Your task to perform on an android device: open app "Venmo" (install if not already installed) Image 0: 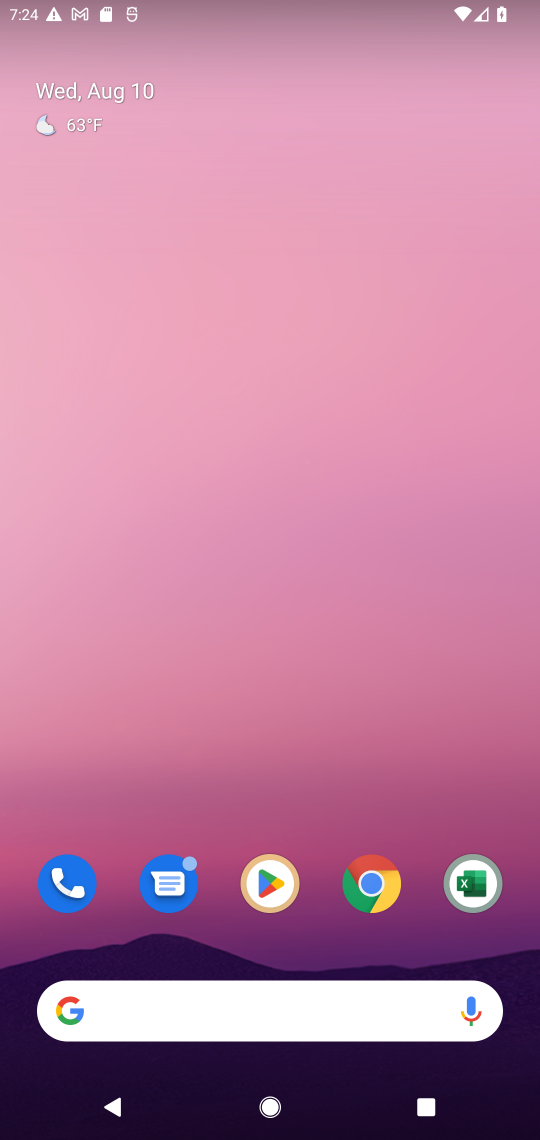
Step 0: click (252, 867)
Your task to perform on an android device: open app "Venmo" (install if not already installed) Image 1: 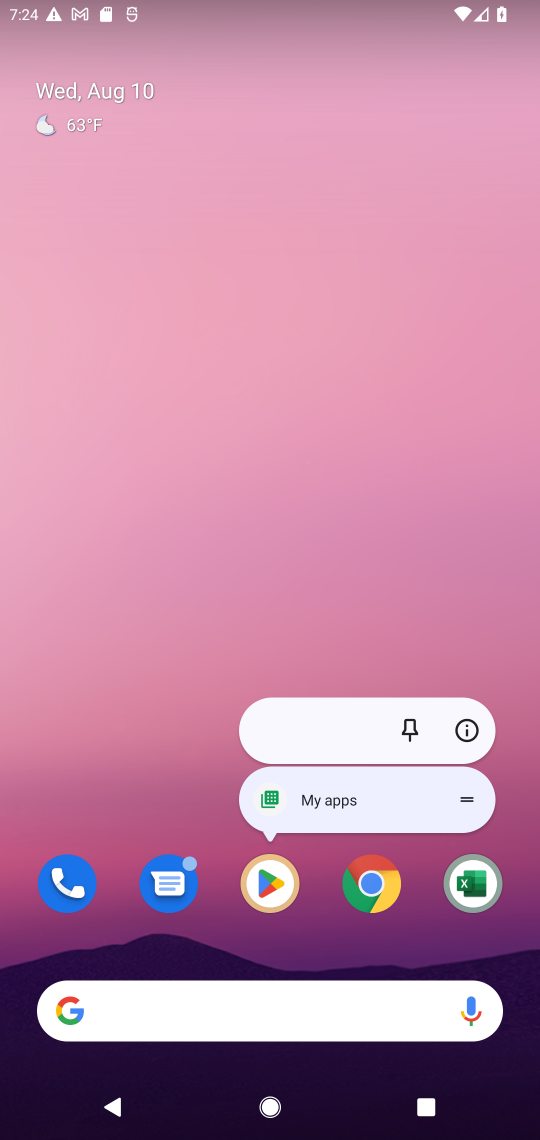
Step 1: click (254, 901)
Your task to perform on an android device: open app "Venmo" (install if not already installed) Image 2: 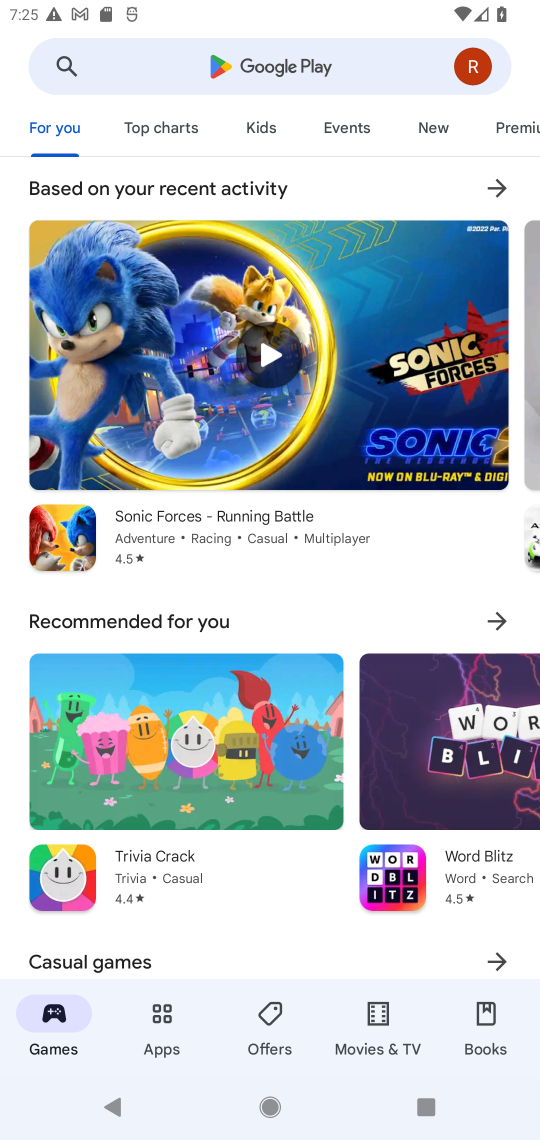
Step 2: click (333, 57)
Your task to perform on an android device: open app "Venmo" (install if not already installed) Image 3: 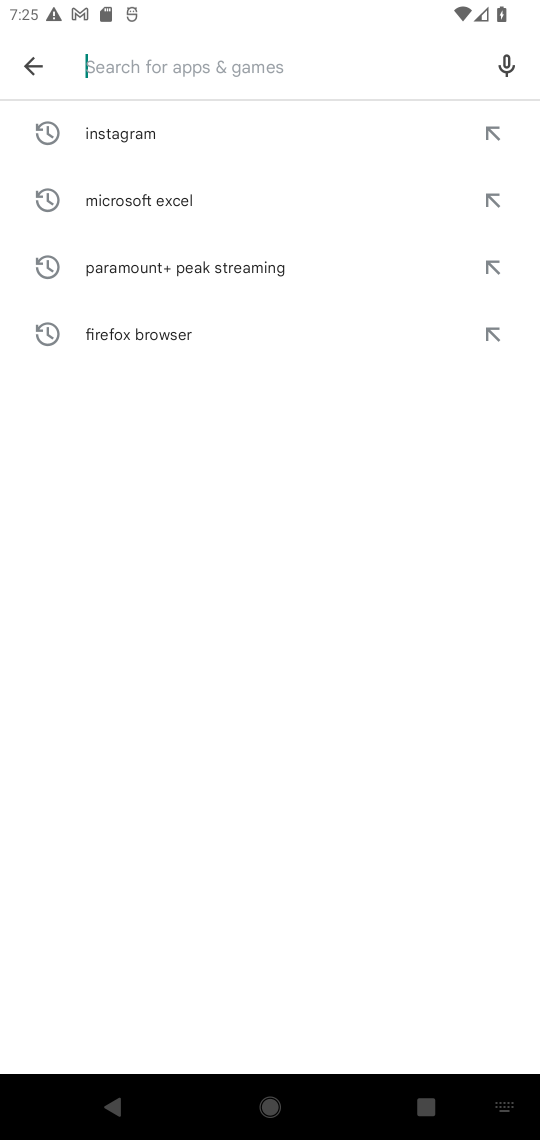
Step 3: type "Venmo"
Your task to perform on an android device: open app "Venmo" (install if not already installed) Image 4: 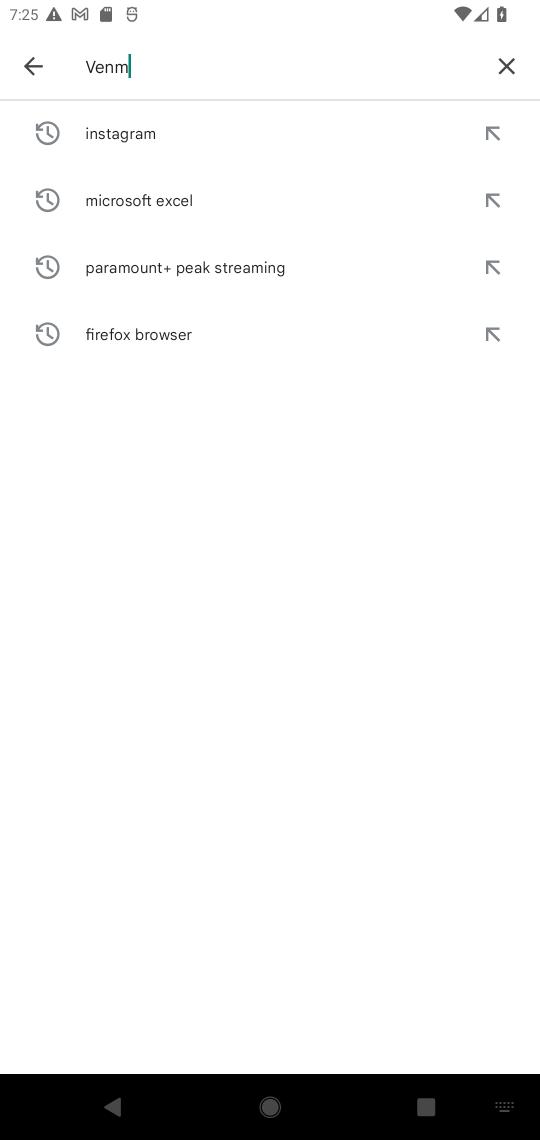
Step 4: type ""
Your task to perform on an android device: open app "Venmo" (install if not already installed) Image 5: 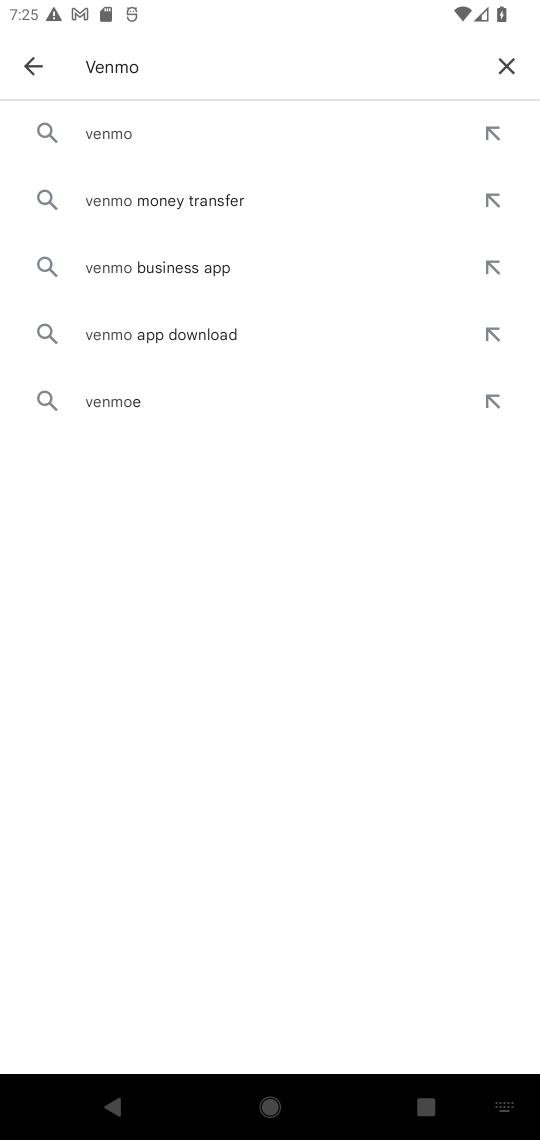
Step 5: click (100, 129)
Your task to perform on an android device: open app "Venmo" (install if not already installed) Image 6: 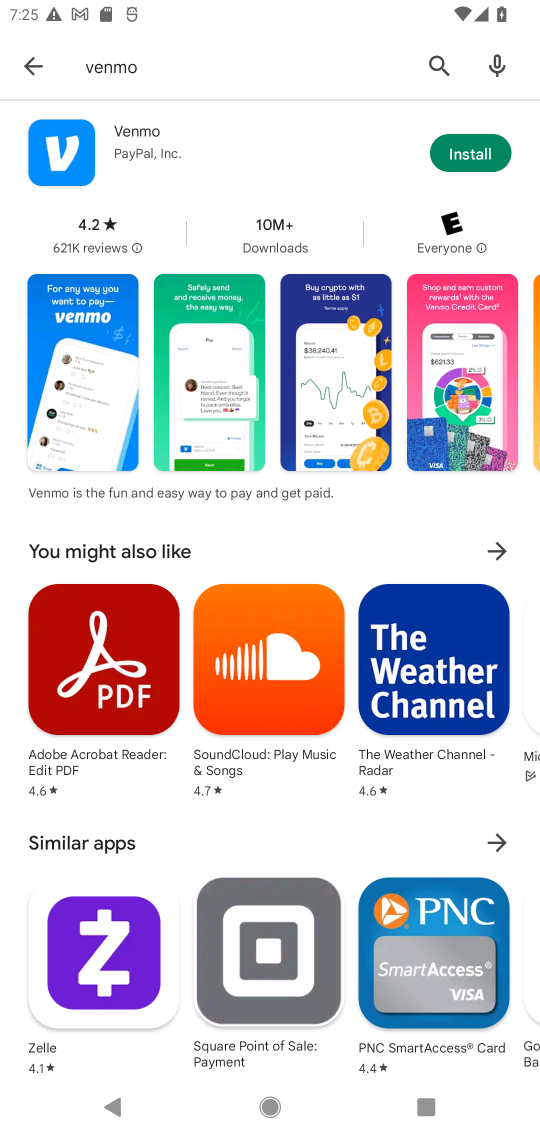
Step 6: click (454, 161)
Your task to perform on an android device: open app "Venmo" (install if not already installed) Image 7: 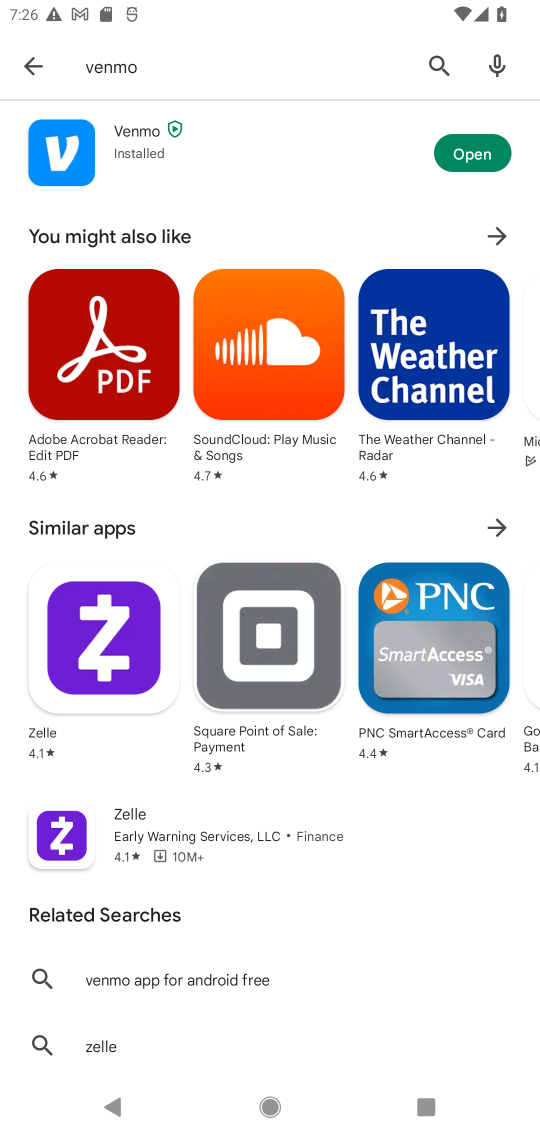
Step 7: click (472, 148)
Your task to perform on an android device: open app "Venmo" (install if not already installed) Image 8: 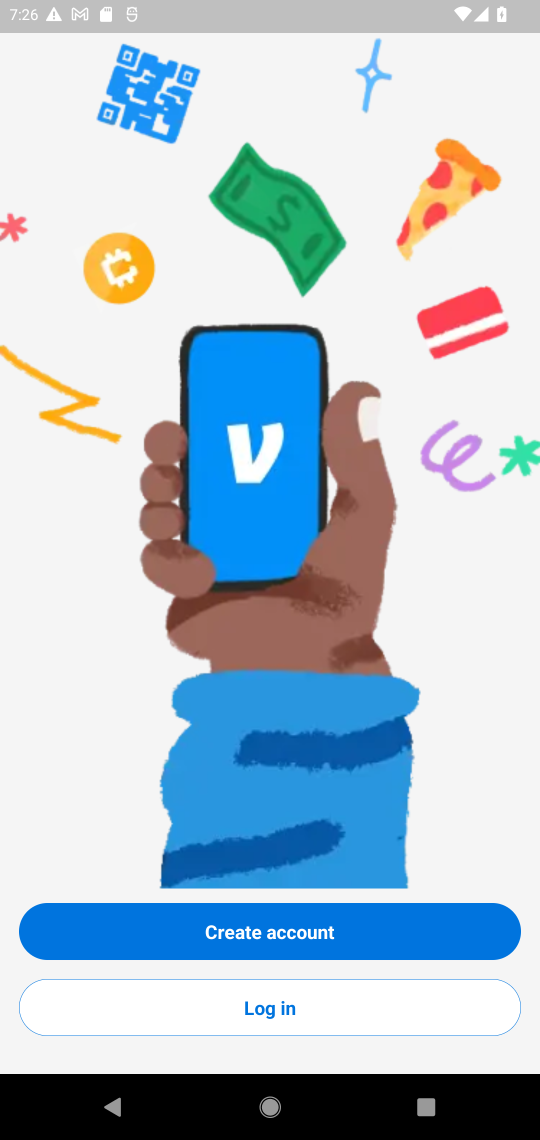
Step 8: task complete